Your task to perform on an android device: What's on my calendar today? Image 0: 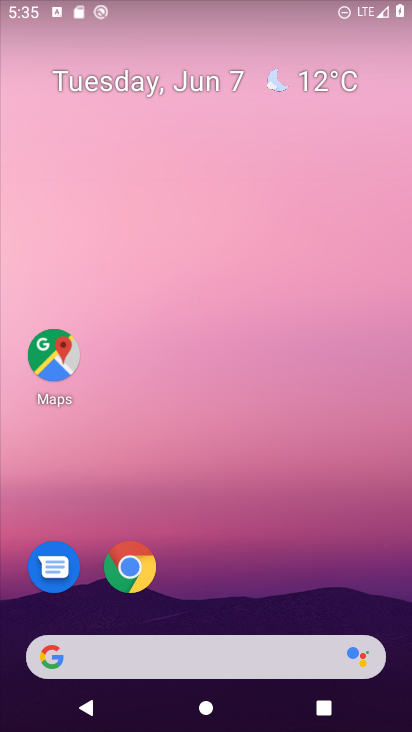
Step 0: drag from (147, 619) to (220, 15)
Your task to perform on an android device: What's on my calendar today? Image 1: 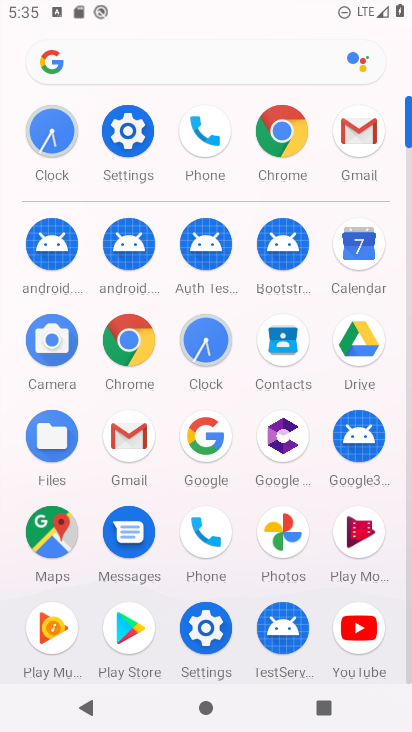
Step 1: click (367, 237)
Your task to perform on an android device: What's on my calendar today? Image 2: 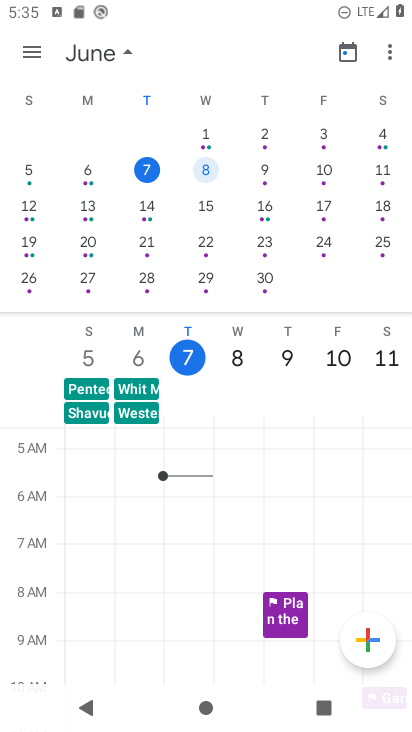
Step 2: task complete